Your task to perform on an android device: Turn on the flashlight Image 0: 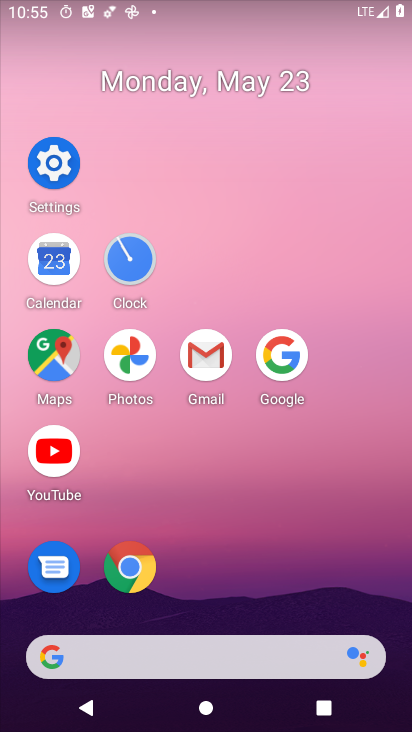
Step 0: drag from (319, 3) to (355, 408)
Your task to perform on an android device: Turn on the flashlight Image 1: 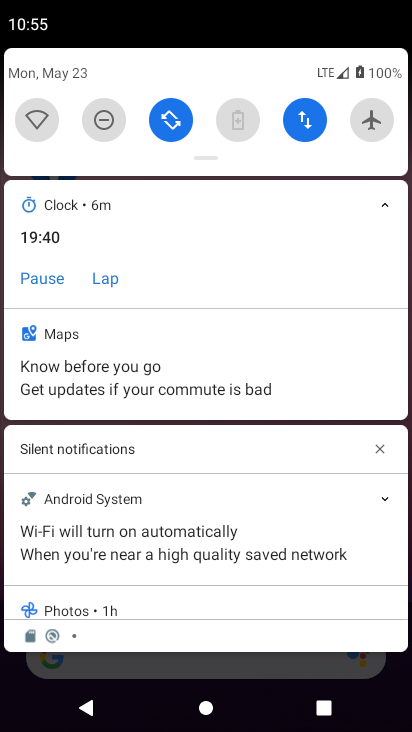
Step 1: task complete